Your task to perform on an android device: toggle improve location accuracy Image 0: 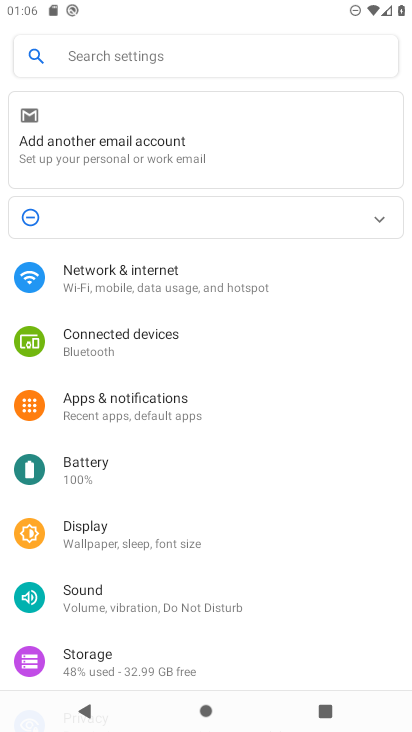
Step 0: drag from (190, 640) to (182, 264)
Your task to perform on an android device: toggle improve location accuracy Image 1: 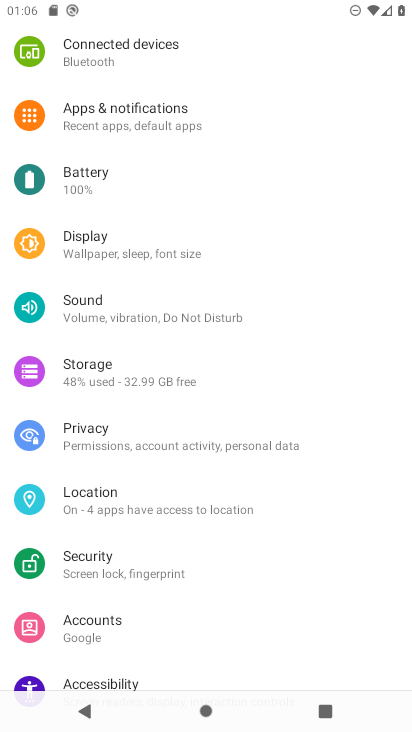
Step 1: click (142, 508)
Your task to perform on an android device: toggle improve location accuracy Image 2: 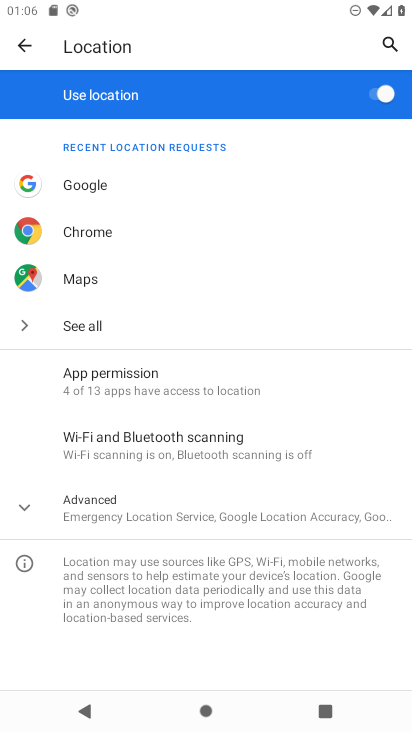
Step 2: click (130, 523)
Your task to perform on an android device: toggle improve location accuracy Image 3: 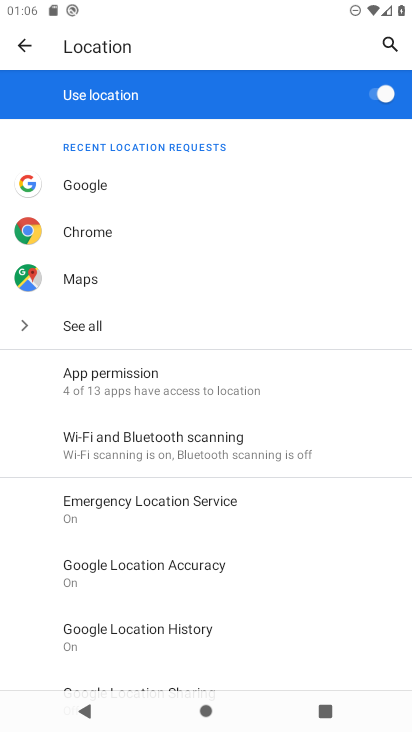
Step 3: click (186, 566)
Your task to perform on an android device: toggle improve location accuracy Image 4: 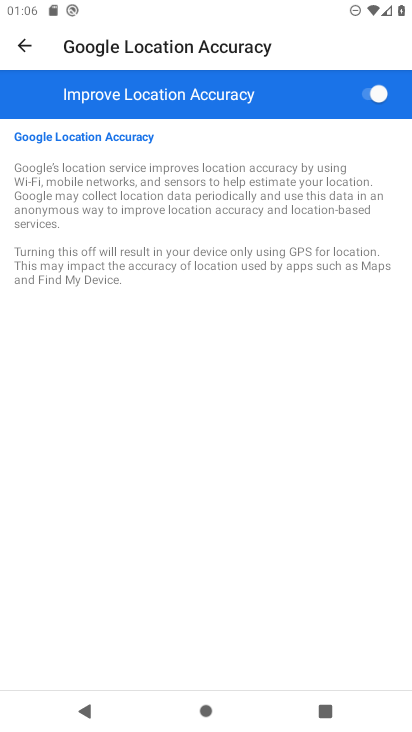
Step 4: click (347, 101)
Your task to perform on an android device: toggle improve location accuracy Image 5: 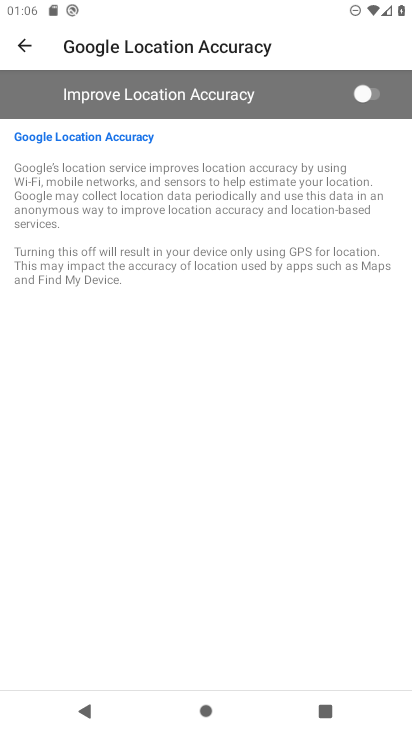
Step 5: task complete